Your task to perform on an android device: What's a good restaurant in Las Vegas? Image 0: 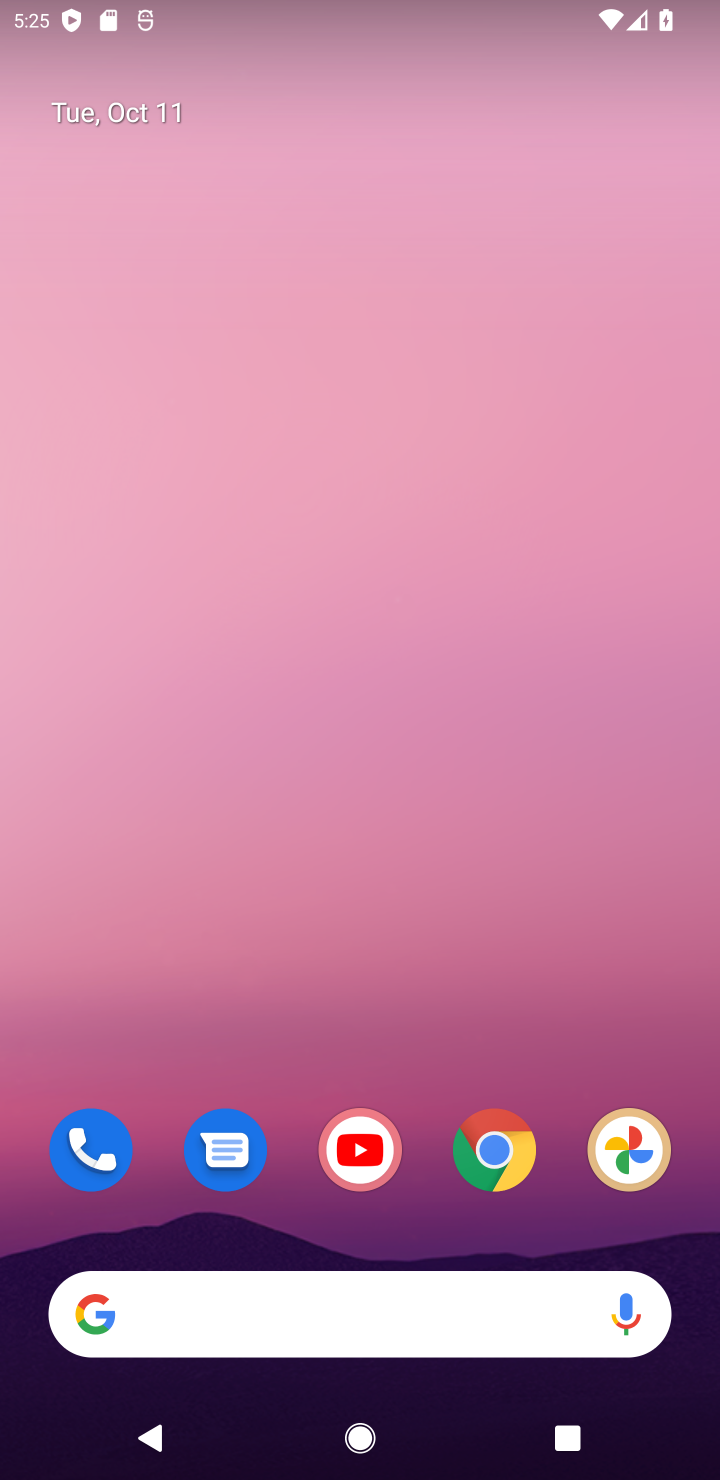
Step 0: click (508, 1156)
Your task to perform on an android device: What's a good restaurant in Las Vegas? Image 1: 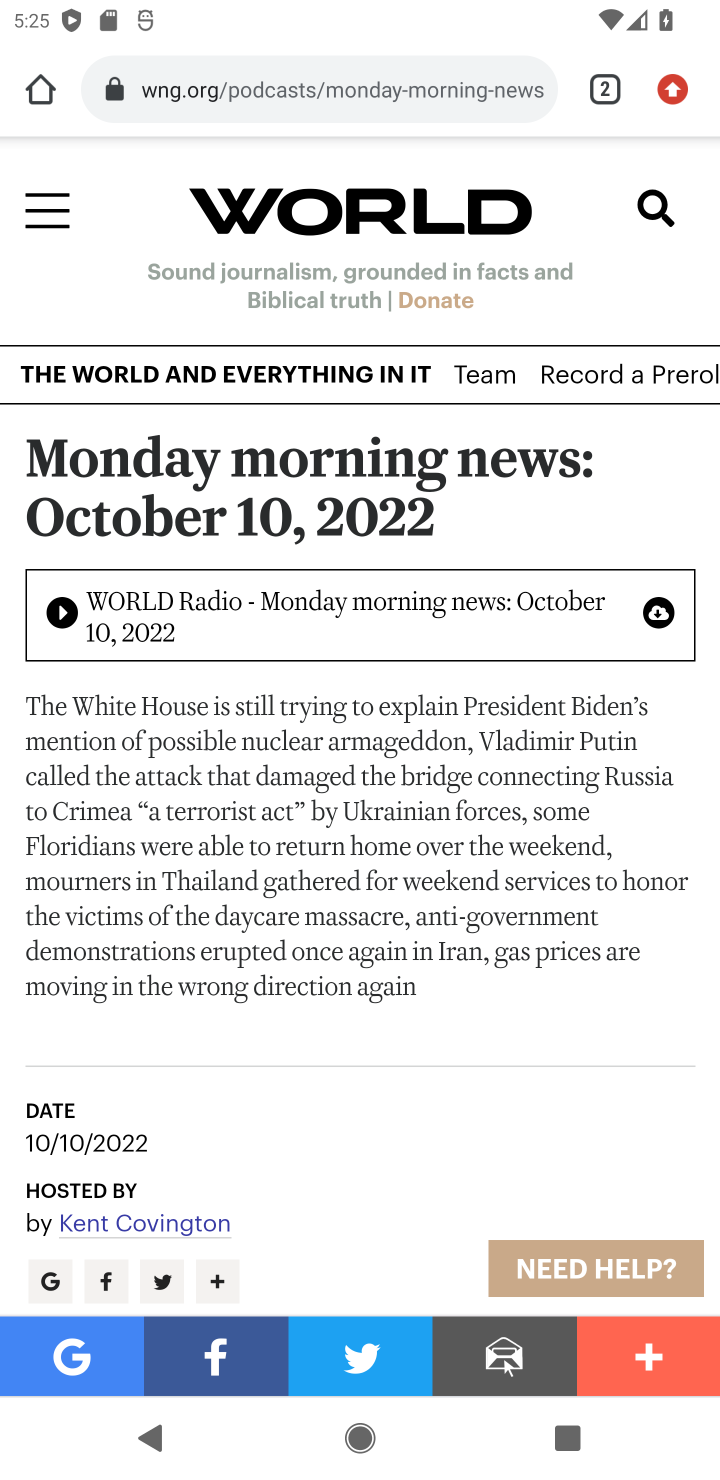
Step 1: click (307, 89)
Your task to perform on an android device: What's a good restaurant in Las Vegas? Image 2: 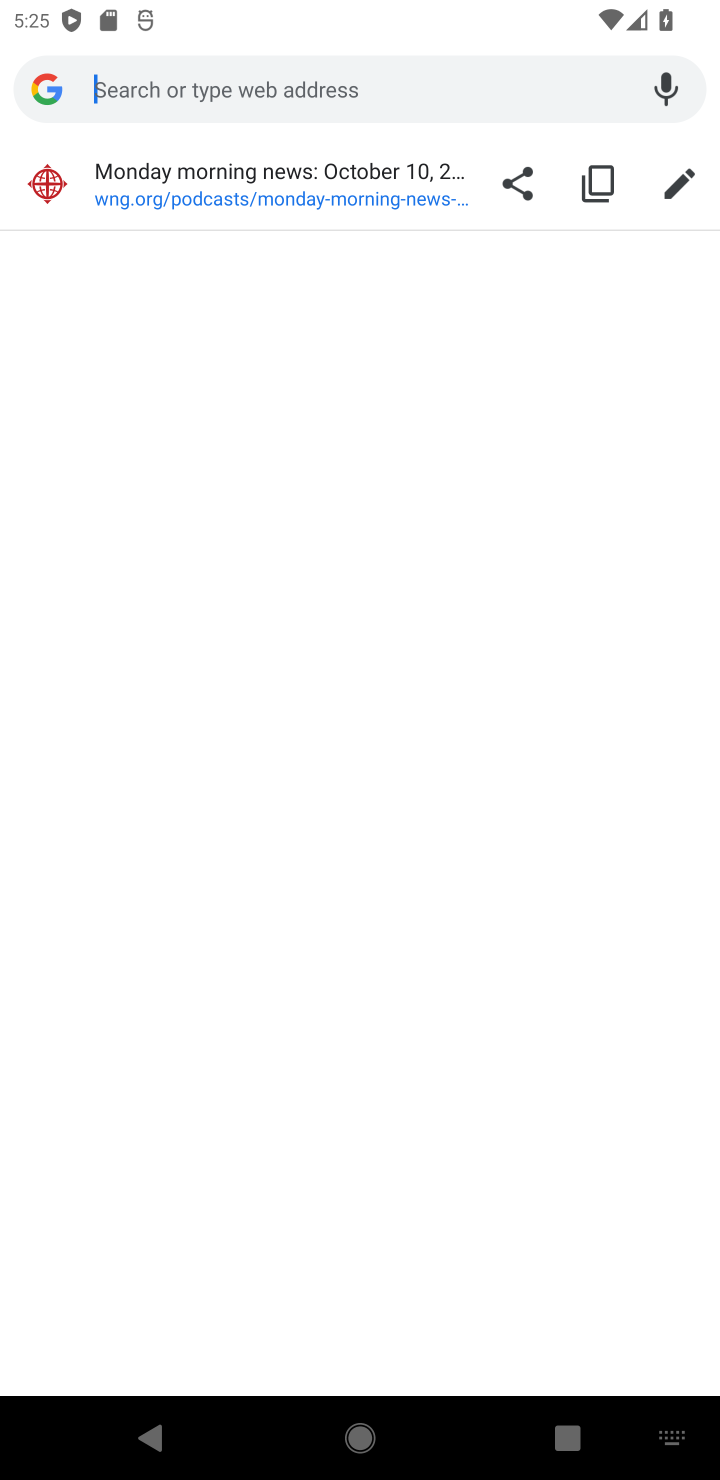
Step 2: type "good restaurant in Las Vegas"
Your task to perform on an android device: What's a good restaurant in Las Vegas? Image 3: 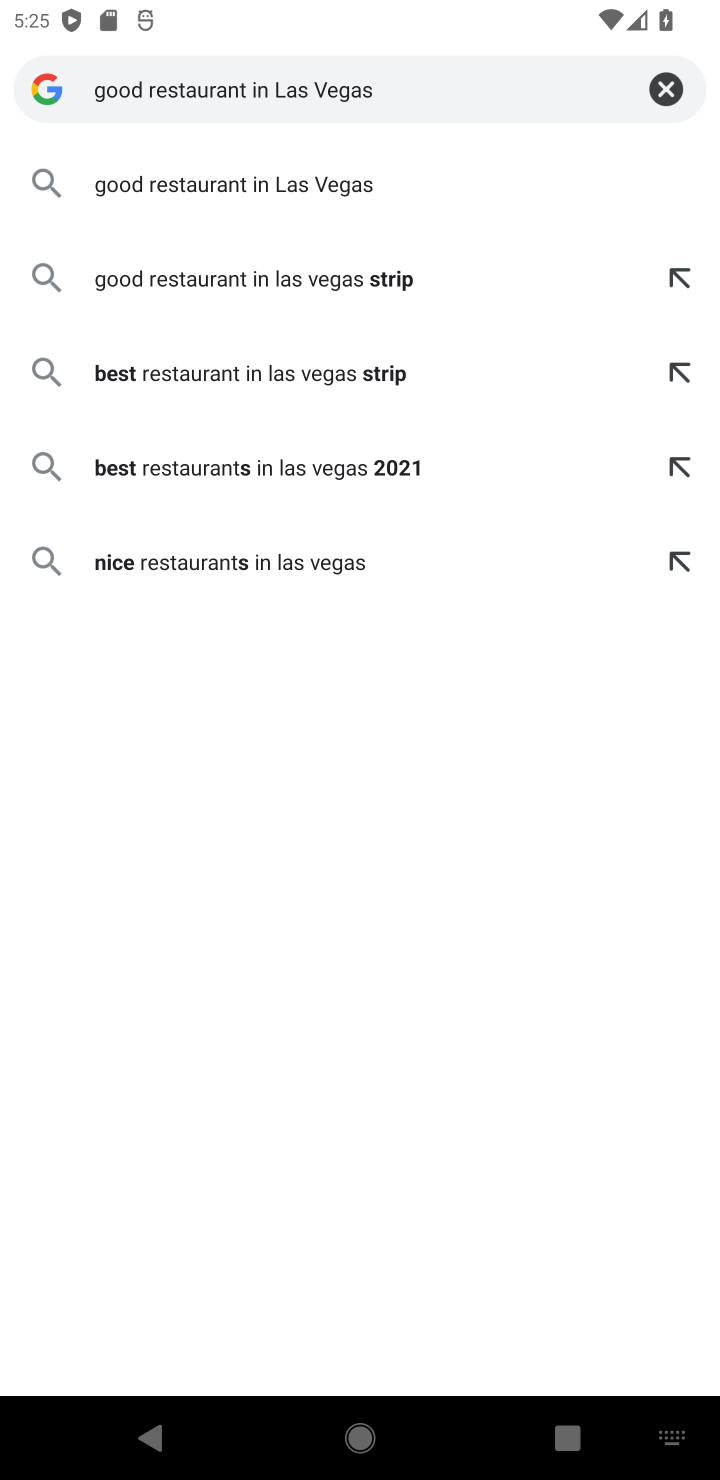
Step 3: click (175, 191)
Your task to perform on an android device: What's a good restaurant in Las Vegas? Image 4: 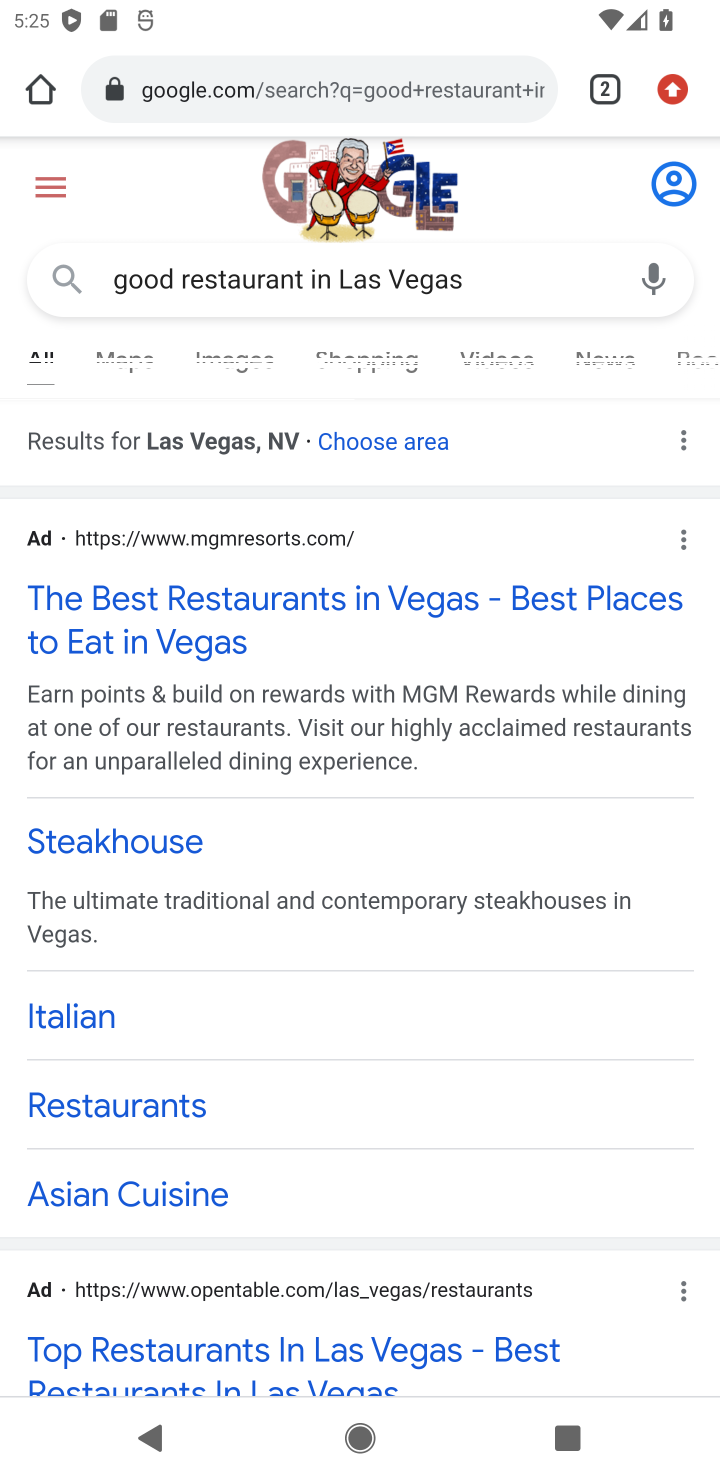
Step 4: click (194, 620)
Your task to perform on an android device: What's a good restaurant in Las Vegas? Image 5: 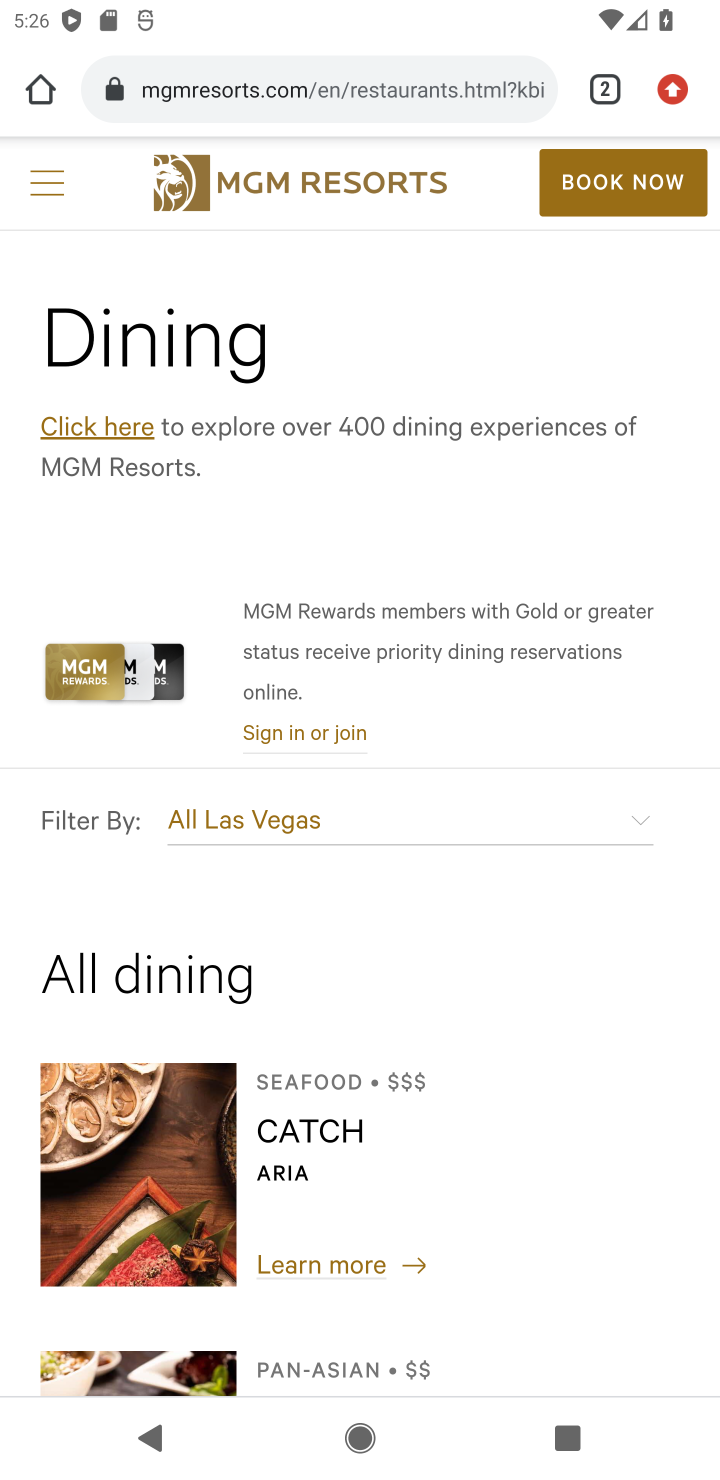
Step 5: task complete